Your task to perform on an android device: install app "Google News" Image 0: 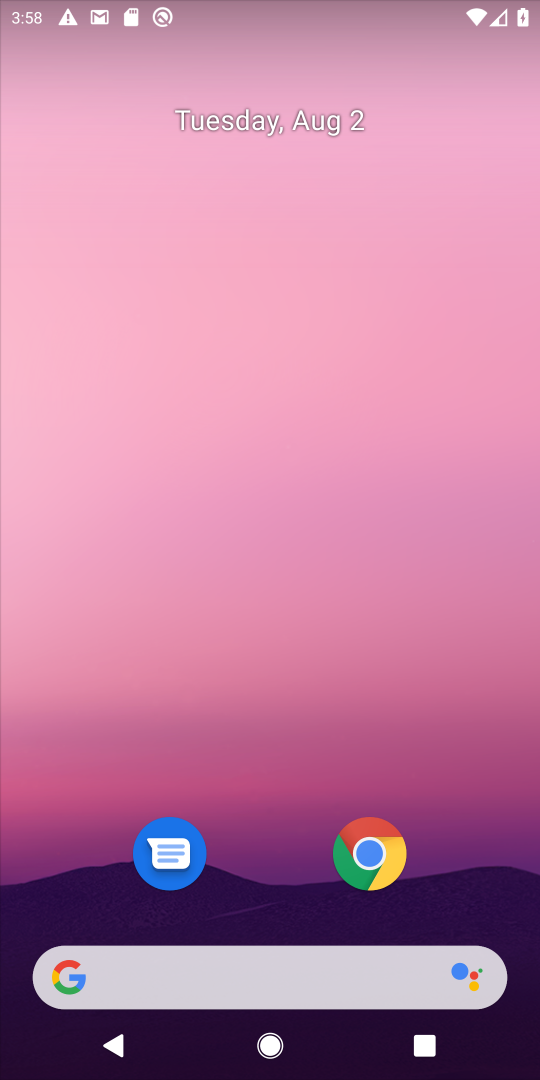
Step 0: drag from (303, 1076) to (322, 5)
Your task to perform on an android device: install app "Google News" Image 1: 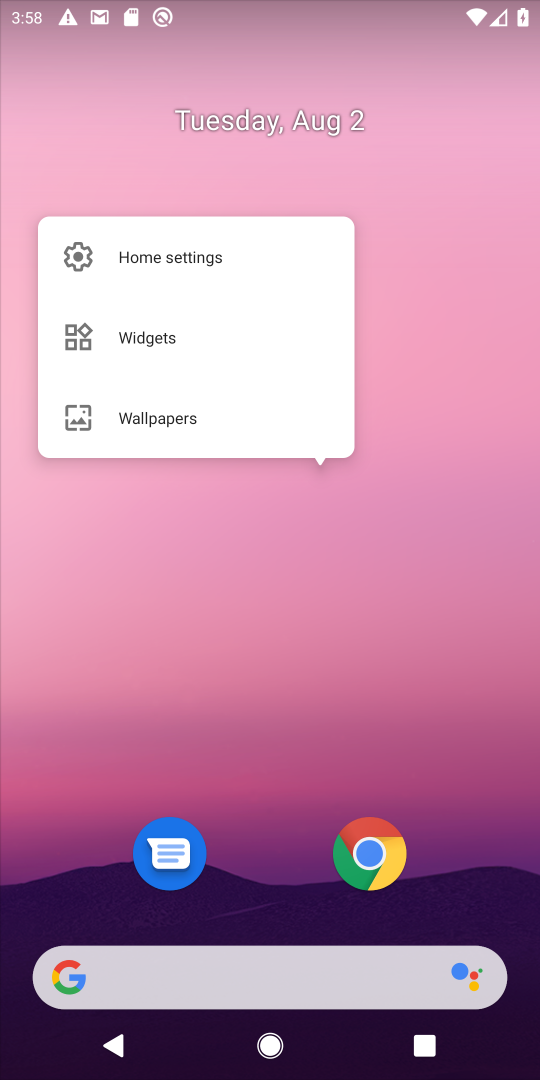
Step 1: click (317, 667)
Your task to perform on an android device: install app "Google News" Image 2: 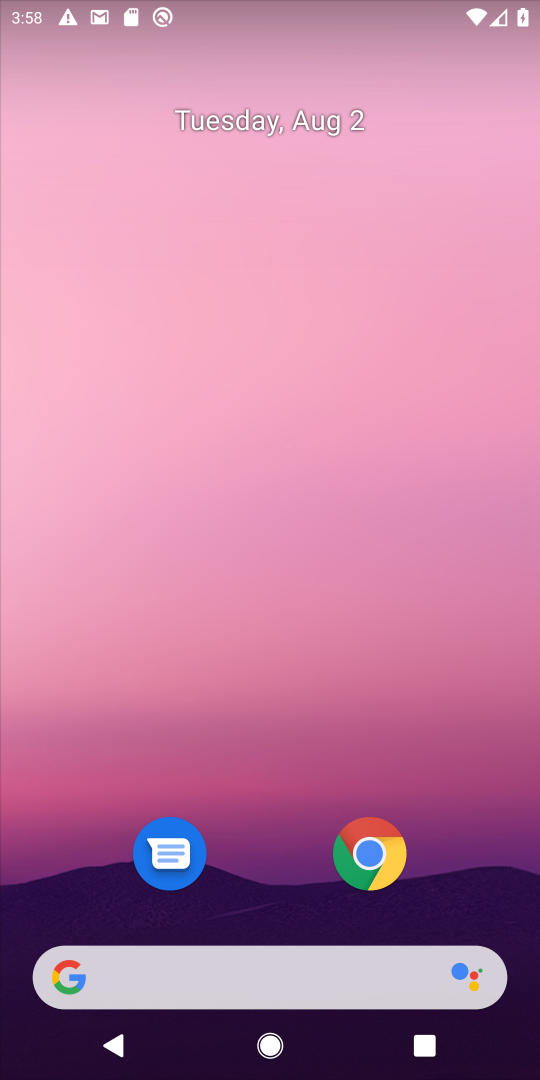
Step 2: click (344, 1046)
Your task to perform on an android device: install app "Google News" Image 3: 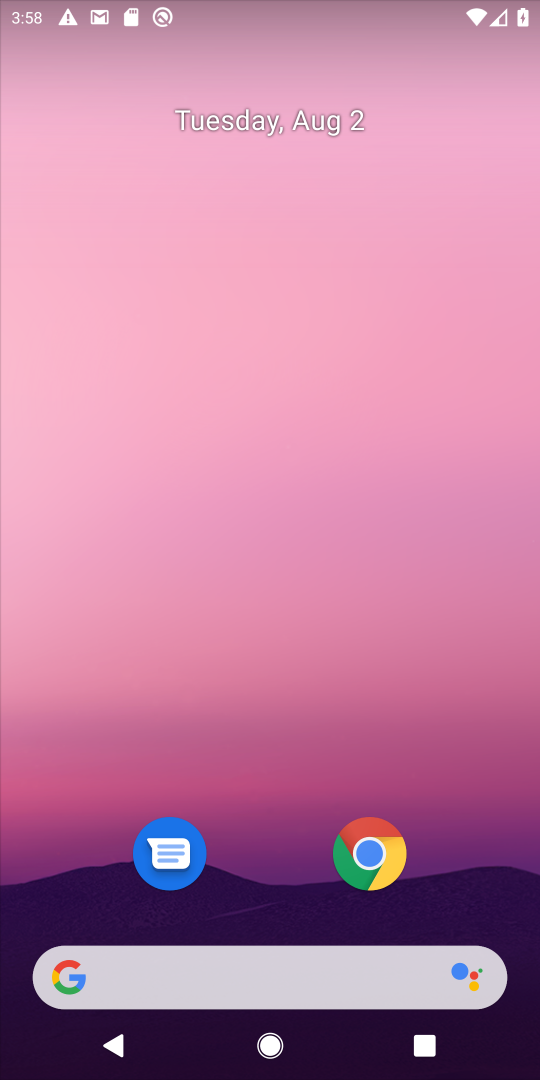
Step 3: drag from (344, 391) to (344, 50)
Your task to perform on an android device: install app "Google News" Image 4: 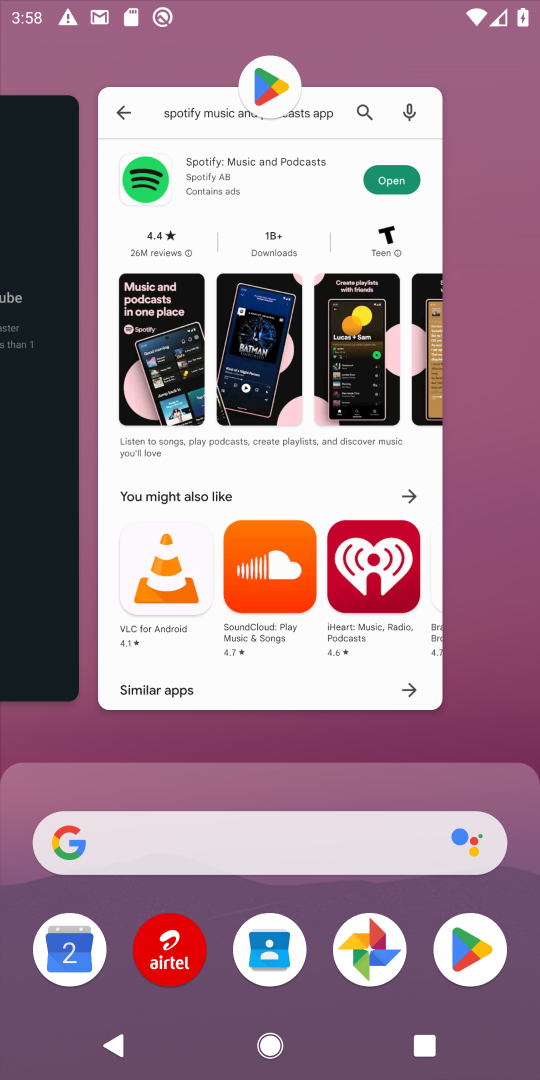
Step 4: click (328, 560)
Your task to perform on an android device: install app "Google News" Image 5: 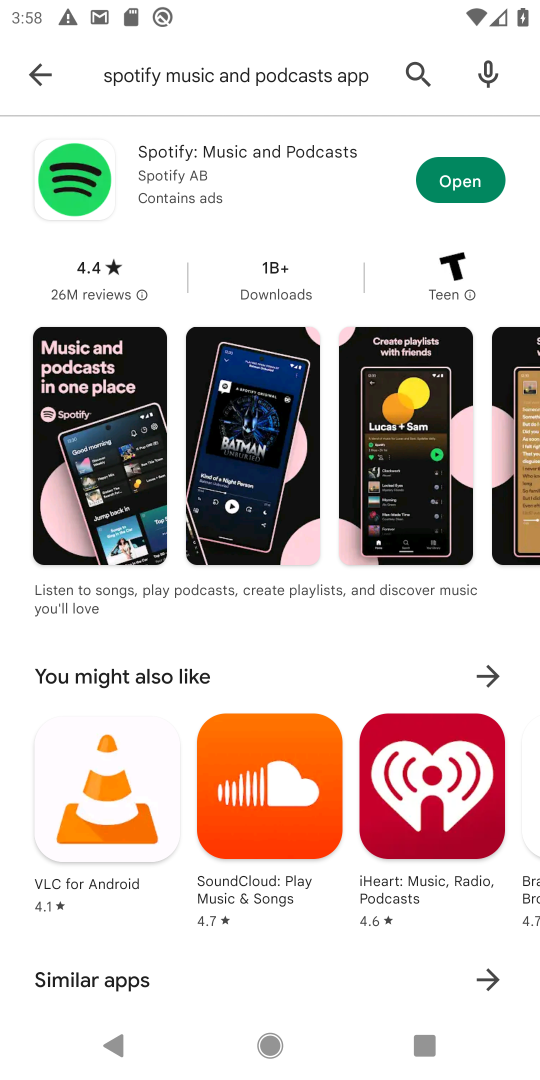
Step 5: click (414, 68)
Your task to perform on an android device: install app "Google News" Image 6: 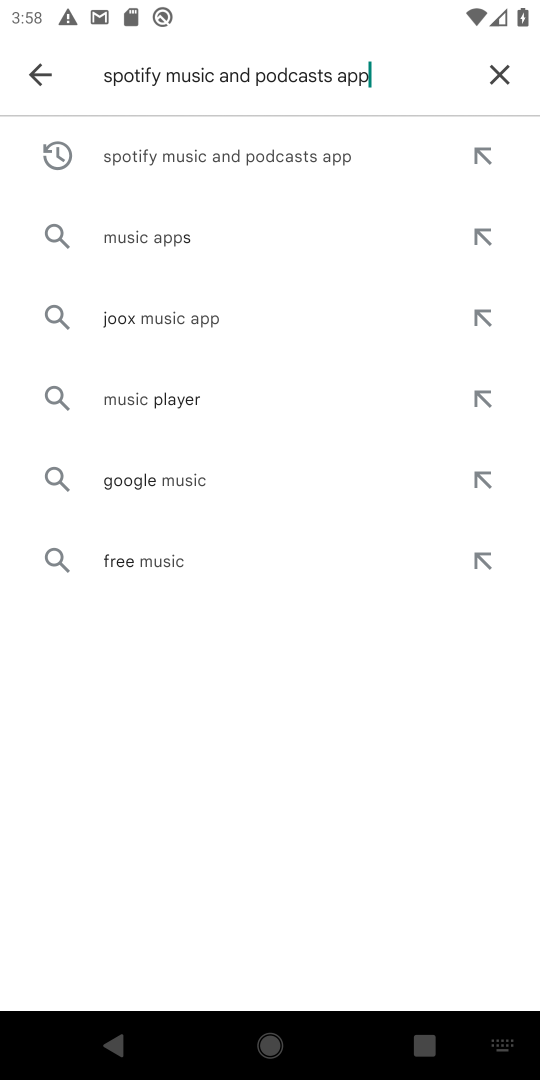
Step 6: click (495, 65)
Your task to perform on an android device: install app "Google News" Image 7: 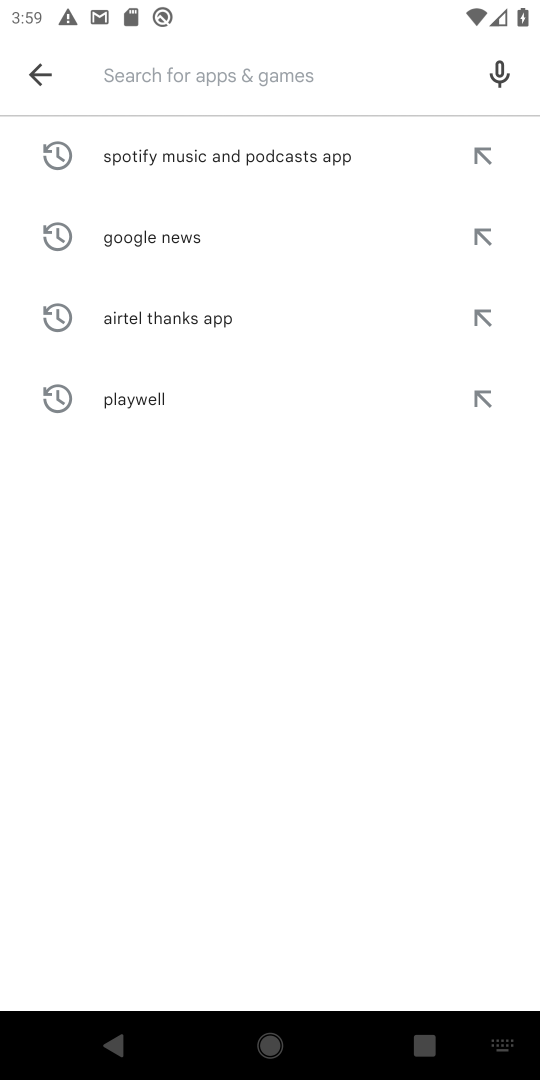
Step 7: type "Google "
Your task to perform on an android device: install app "Google News" Image 8: 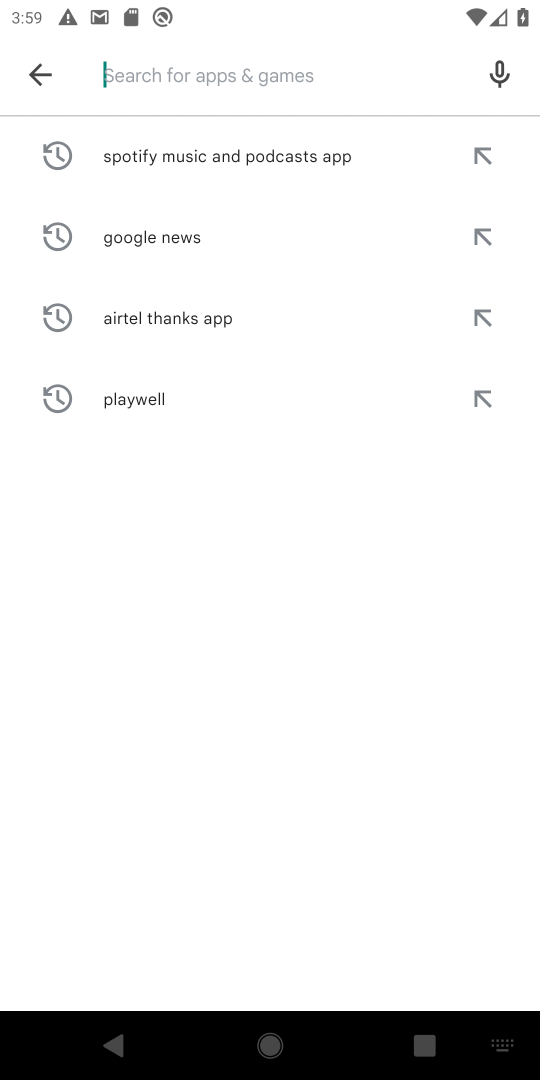
Step 8: click (162, 239)
Your task to perform on an android device: install app "Google News" Image 9: 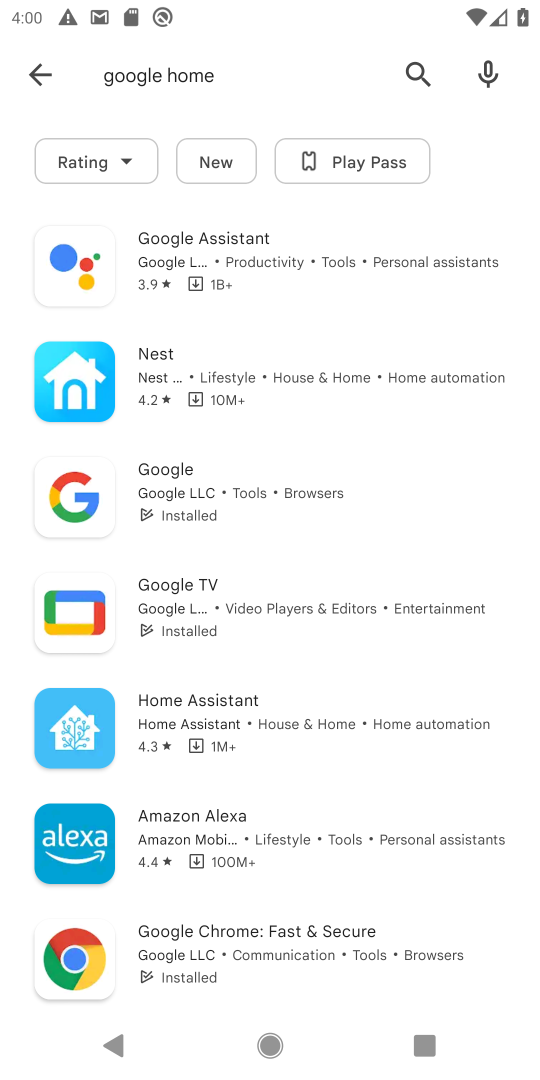
Step 9: task complete